Your task to perform on an android device: Set the phone to "Do not disturb". Image 0: 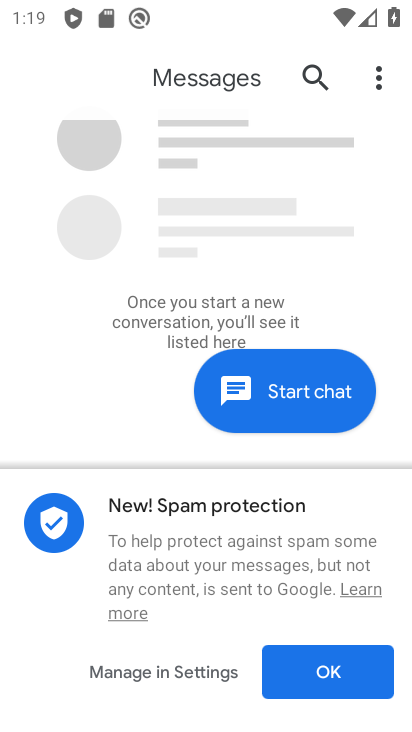
Step 0: press home button
Your task to perform on an android device: Set the phone to "Do not disturb". Image 1: 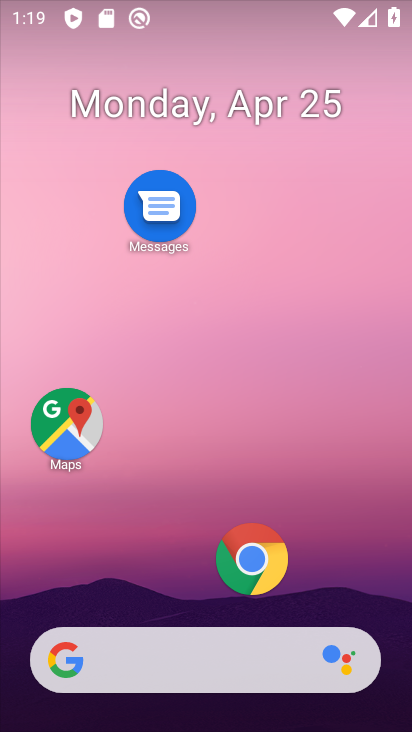
Step 1: drag from (161, 545) to (195, 57)
Your task to perform on an android device: Set the phone to "Do not disturb". Image 2: 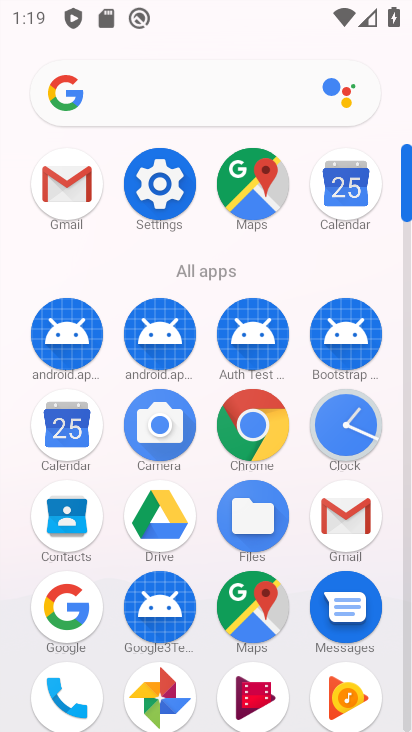
Step 2: click (159, 184)
Your task to perform on an android device: Set the phone to "Do not disturb". Image 3: 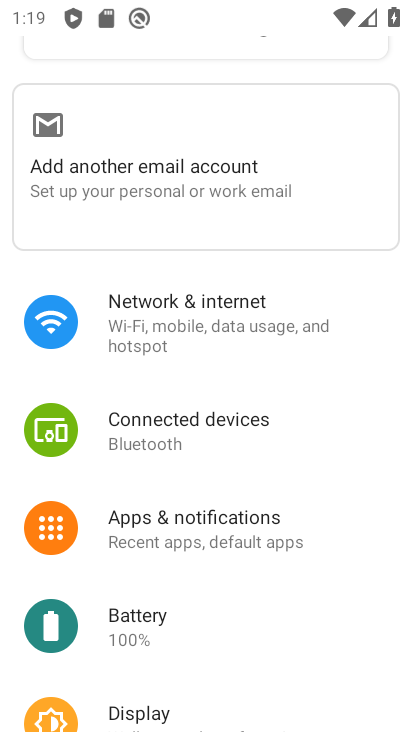
Step 3: drag from (246, 551) to (287, 143)
Your task to perform on an android device: Set the phone to "Do not disturb". Image 4: 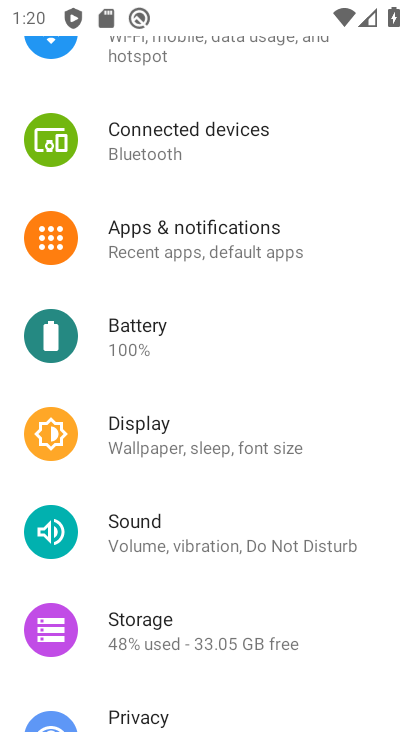
Step 4: click (138, 545)
Your task to perform on an android device: Set the phone to "Do not disturb". Image 5: 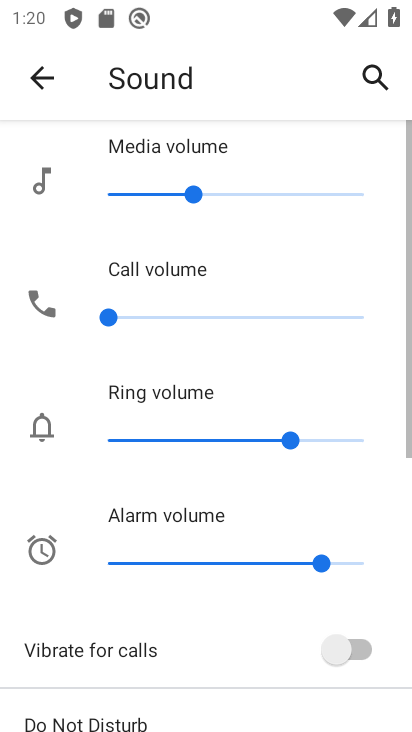
Step 5: drag from (175, 621) to (197, 176)
Your task to perform on an android device: Set the phone to "Do not disturb". Image 6: 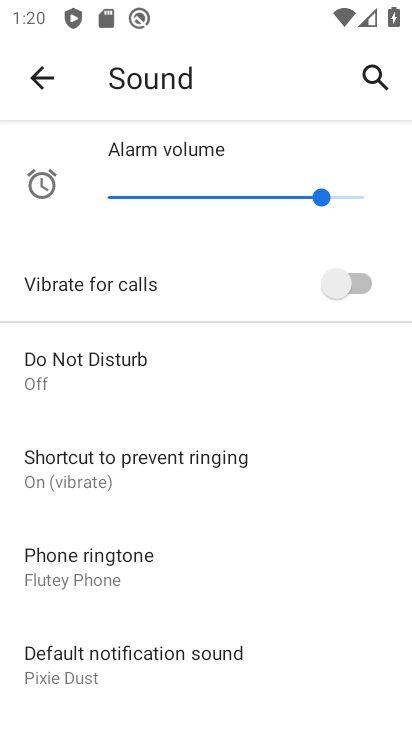
Step 6: click (158, 376)
Your task to perform on an android device: Set the phone to "Do not disturb". Image 7: 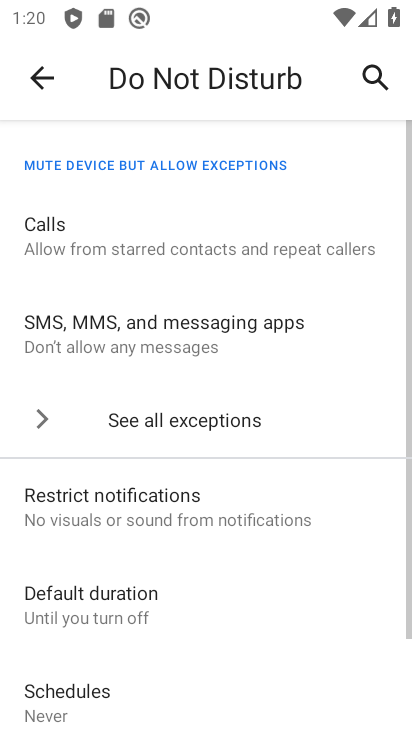
Step 7: drag from (300, 565) to (291, 88)
Your task to perform on an android device: Set the phone to "Do not disturb". Image 8: 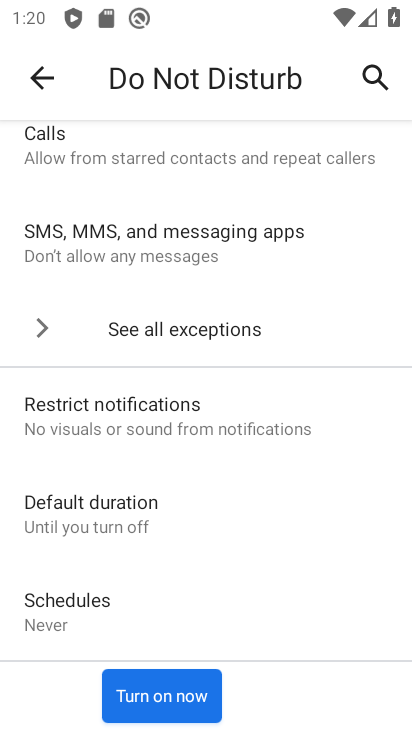
Step 8: click (152, 701)
Your task to perform on an android device: Set the phone to "Do not disturb". Image 9: 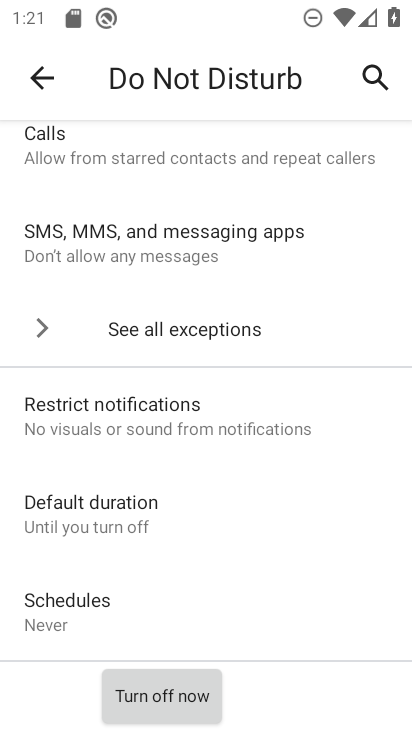
Step 9: task complete